Your task to perform on an android device: toggle pop-ups in chrome Image 0: 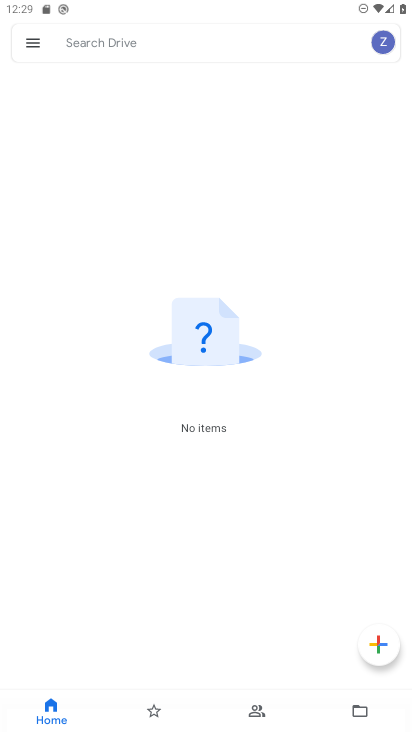
Step 0: press home button
Your task to perform on an android device: toggle pop-ups in chrome Image 1: 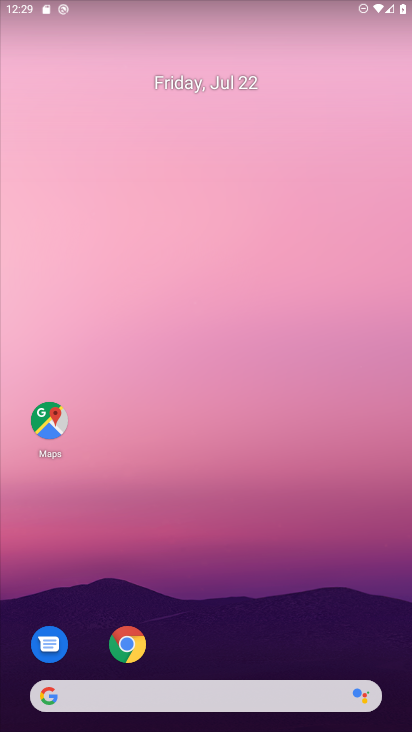
Step 1: click (127, 630)
Your task to perform on an android device: toggle pop-ups in chrome Image 2: 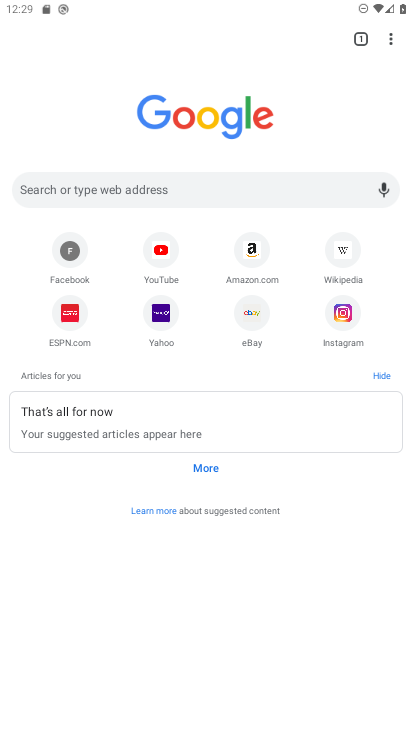
Step 2: click (396, 46)
Your task to perform on an android device: toggle pop-ups in chrome Image 3: 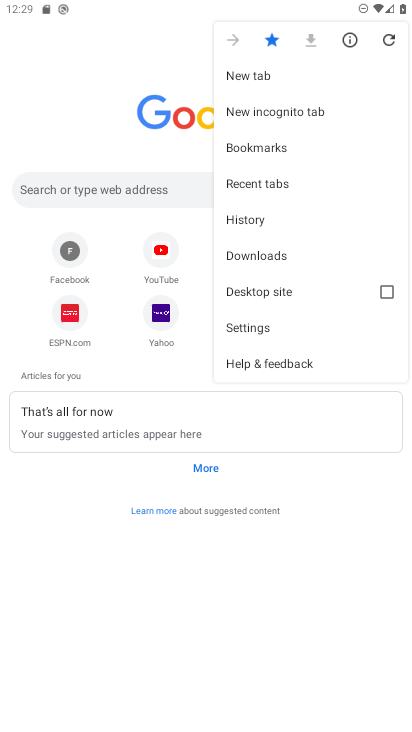
Step 3: click (245, 331)
Your task to perform on an android device: toggle pop-ups in chrome Image 4: 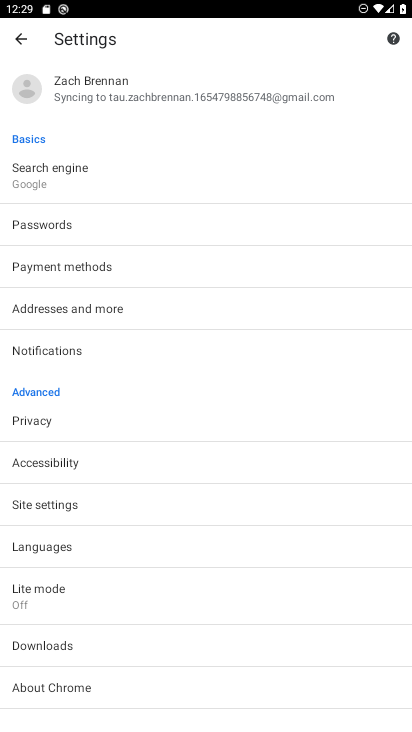
Step 4: click (72, 509)
Your task to perform on an android device: toggle pop-ups in chrome Image 5: 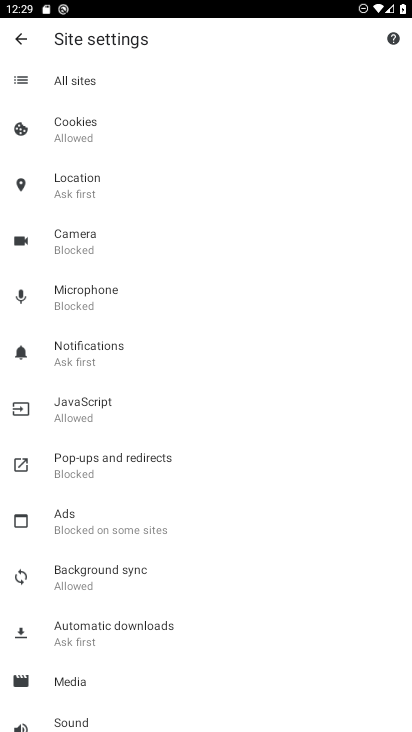
Step 5: click (120, 473)
Your task to perform on an android device: toggle pop-ups in chrome Image 6: 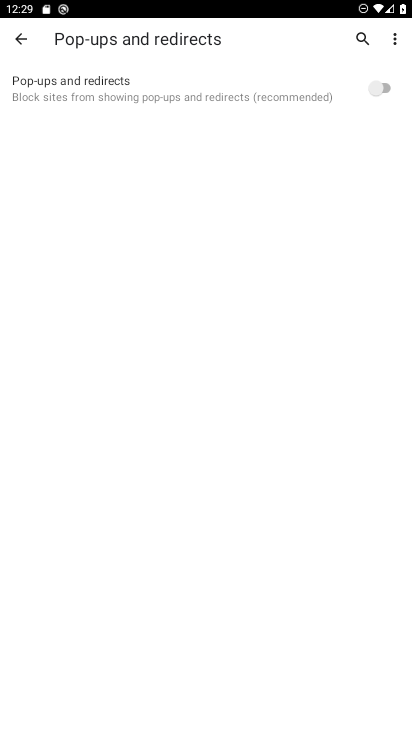
Step 6: click (381, 102)
Your task to perform on an android device: toggle pop-ups in chrome Image 7: 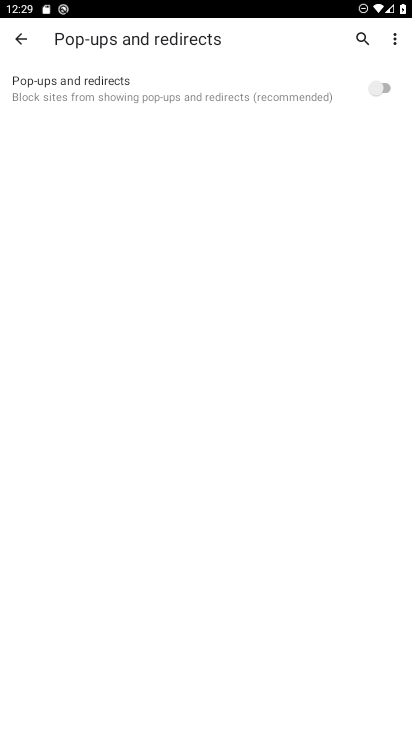
Step 7: click (381, 102)
Your task to perform on an android device: toggle pop-ups in chrome Image 8: 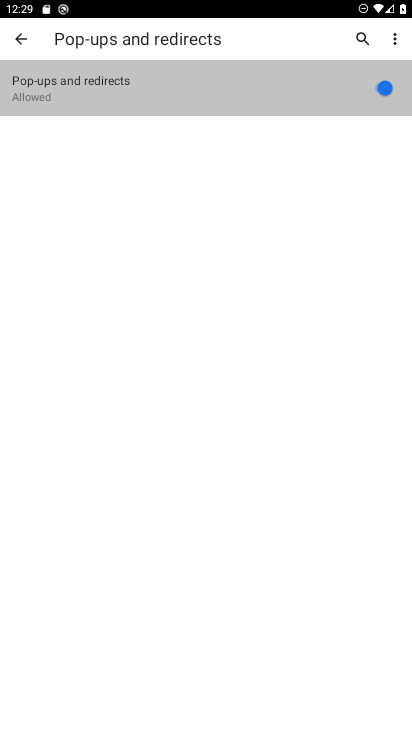
Step 8: click (381, 102)
Your task to perform on an android device: toggle pop-ups in chrome Image 9: 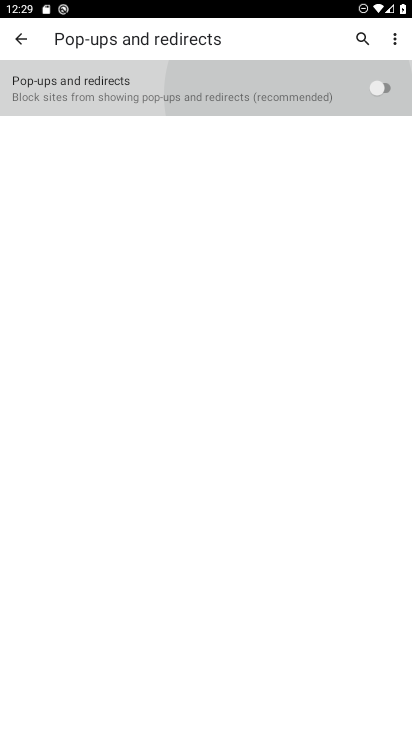
Step 9: click (381, 102)
Your task to perform on an android device: toggle pop-ups in chrome Image 10: 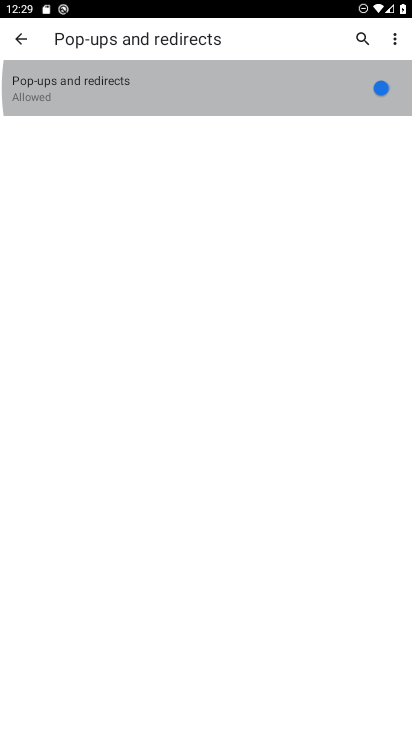
Step 10: click (381, 102)
Your task to perform on an android device: toggle pop-ups in chrome Image 11: 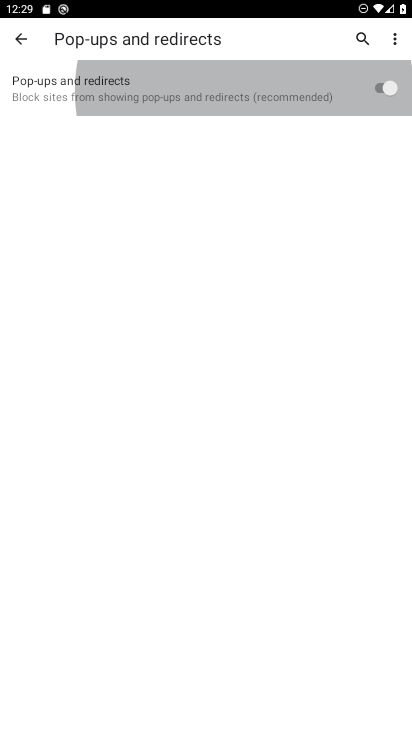
Step 11: click (381, 102)
Your task to perform on an android device: toggle pop-ups in chrome Image 12: 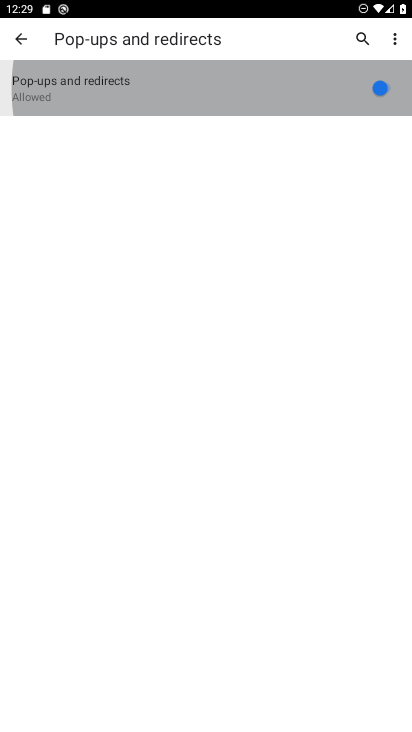
Step 12: click (381, 102)
Your task to perform on an android device: toggle pop-ups in chrome Image 13: 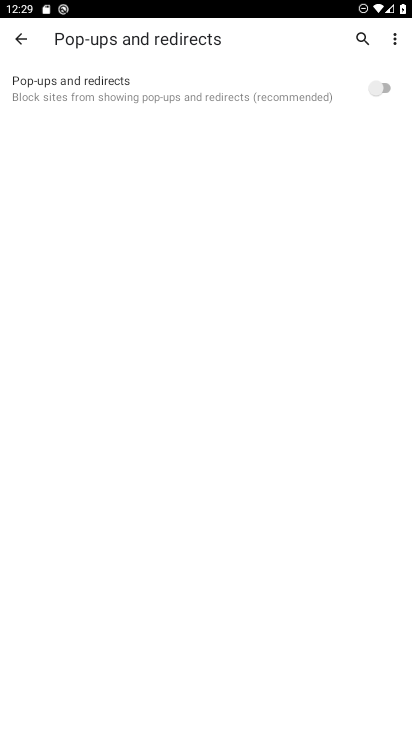
Step 13: task complete